Your task to perform on an android device: change the clock display to analog Image 0: 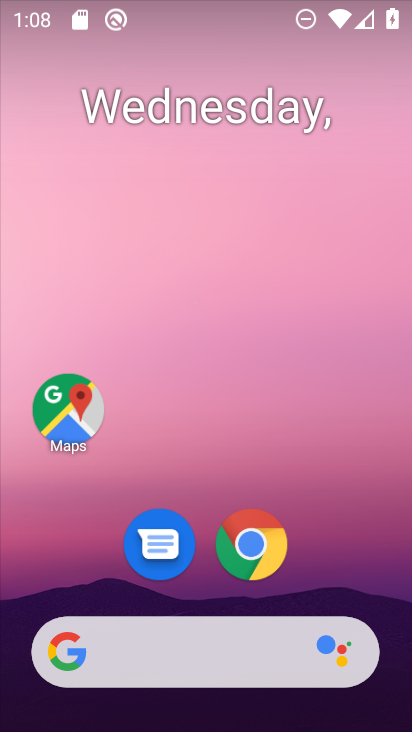
Step 0: drag from (312, 592) to (336, 127)
Your task to perform on an android device: change the clock display to analog Image 1: 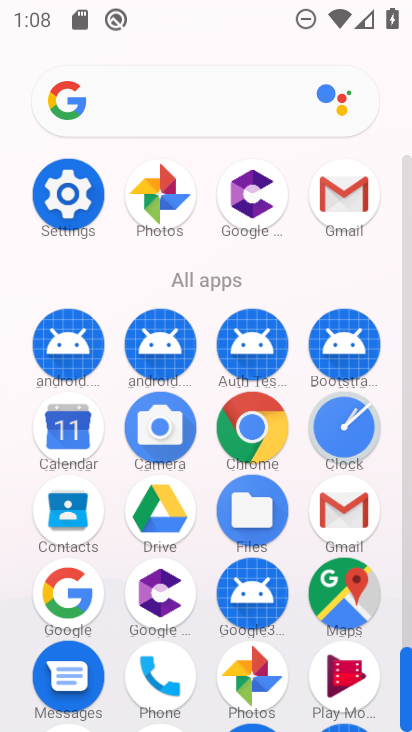
Step 1: click (339, 426)
Your task to perform on an android device: change the clock display to analog Image 2: 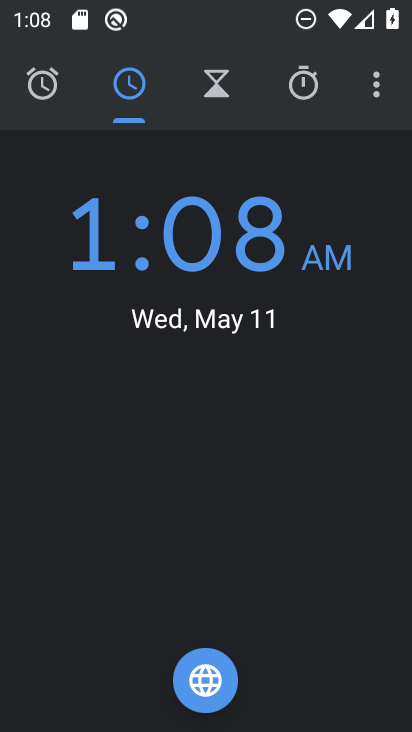
Step 2: click (359, 92)
Your task to perform on an android device: change the clock display to analog Image 3: 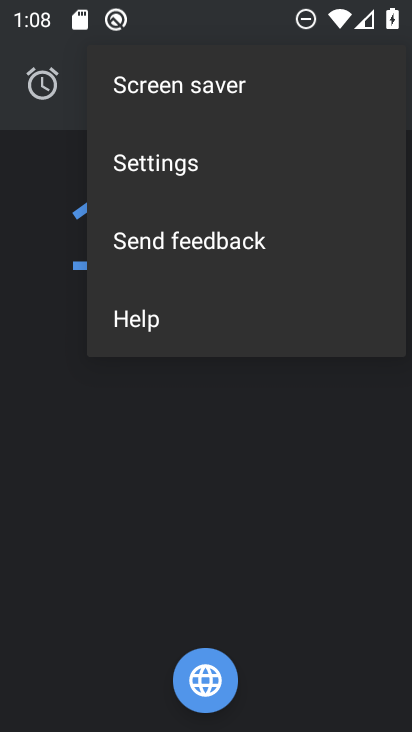
Step 3: click (293, 143)
Your task to perform on an android device: change the clock display to analog Image 4: 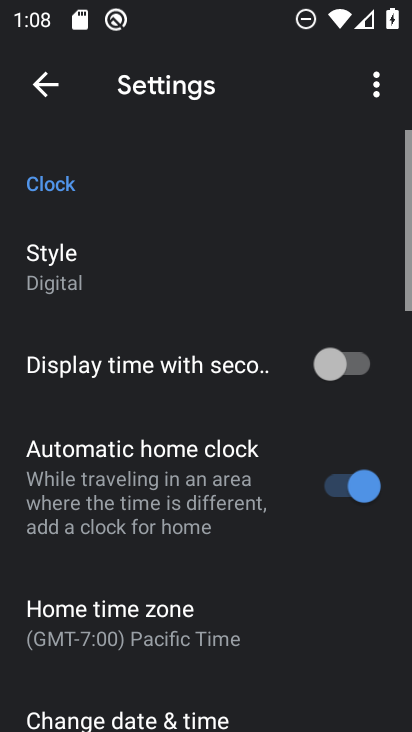
Step 4: click (83, 273)
Your task to perform on an android device: change the clock display to analog Image 5: 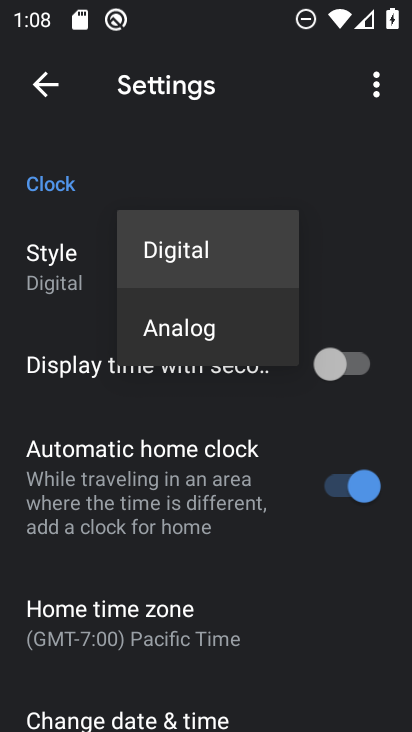
Step 5: click (172, 325)
Your task to perform on an android device: change the clock display to analog Image 6: 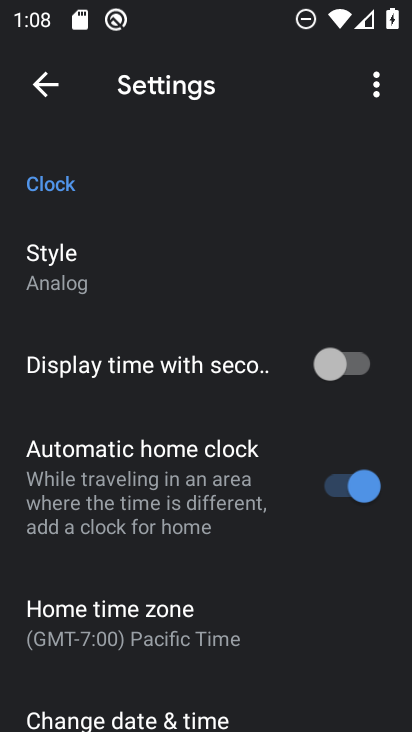
Step 6: task complete